Your task to perform on an android device: Search for Italian restaurants on Maps Image 0: 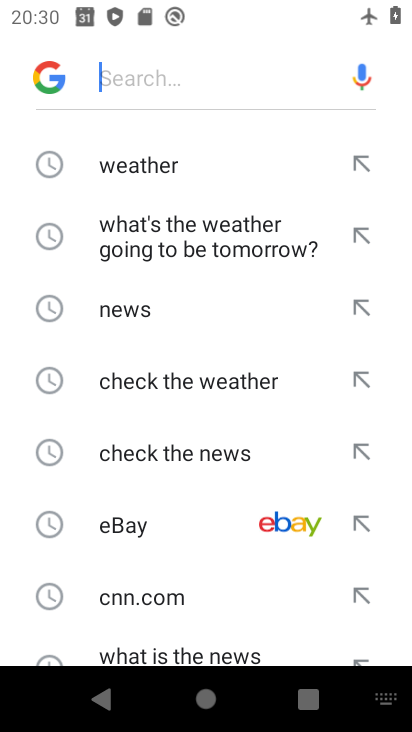
Step 0: press home button
Your task to perform on an android device: Search for Italian restaurants on Maps Image 1: 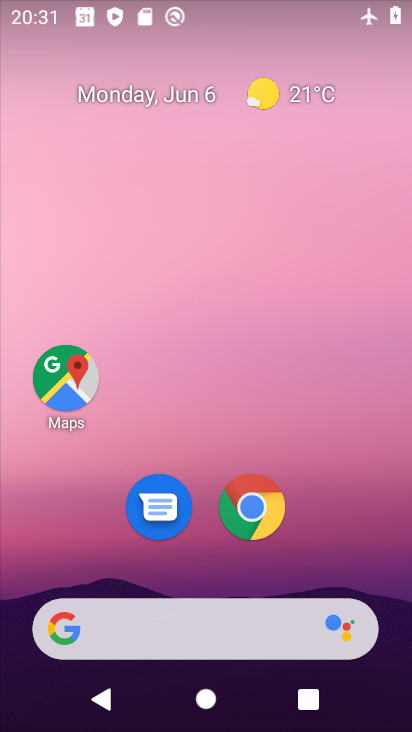
Step 1: click (53, 376)
Your task to perform on an android device: Search for Italian restaurants on Maps Image 2: 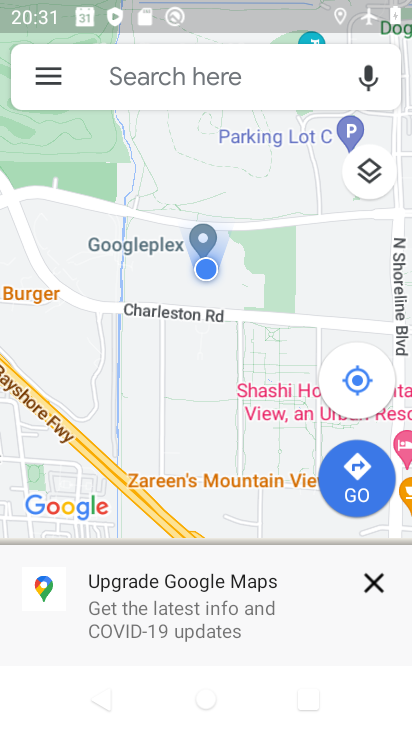
Step 2: click (376, 584)
Your task to perform on an android device: Search for Italian restaurants on Maps Image 3: 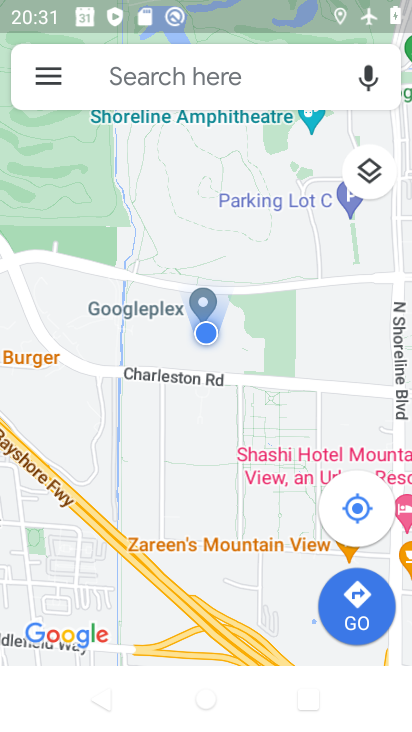
Step 3: click (43, 76)
Your task to perform on an android device: Search for Italian restaurants on Maps Image 4: 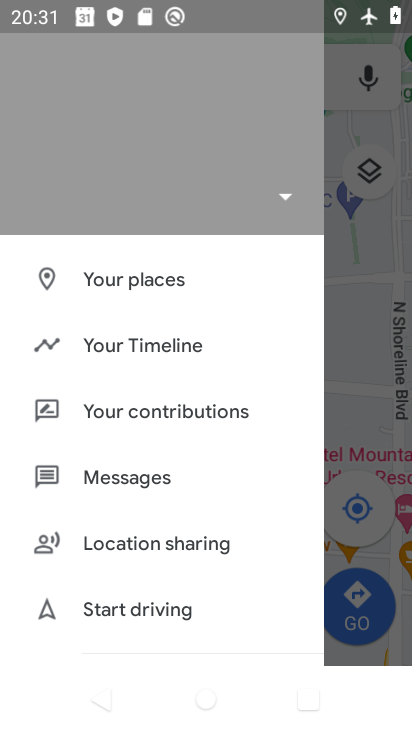
Step 4: drag from (160, 564) to (154, 236)
Your task to perform on an android device: Search for Italian restaurants on Maps Image 5: 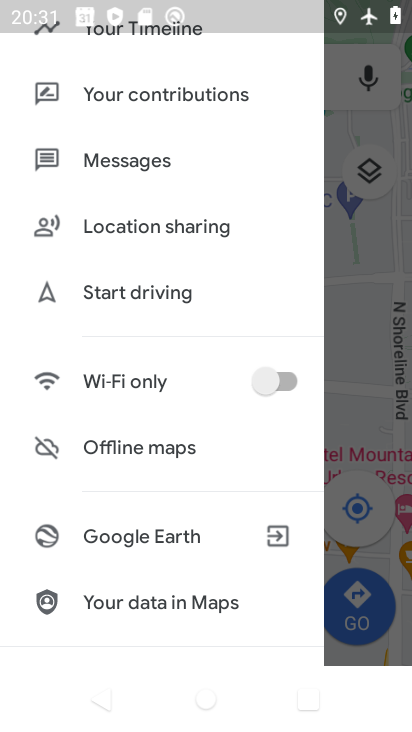
Step 5: drag from (165, 529) to (184, 152)
Your task to perform on an android device: Search for Italian restaurants on Maps Image 6: 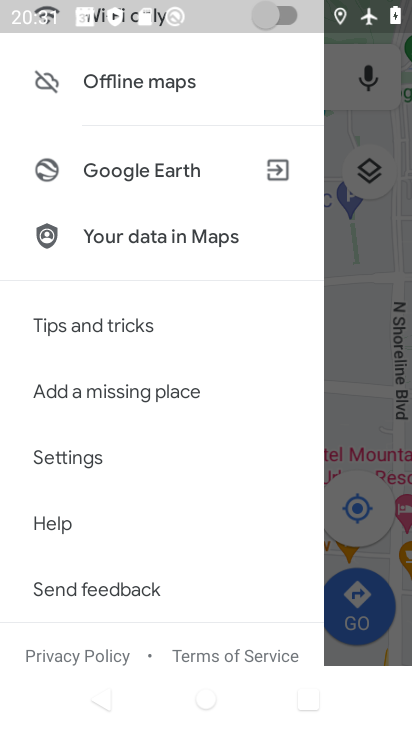
Step 6: drag from (168, 640) to (109, 184)
Your task to perform on an android device: Search for Italian restaurants on Maps Image 7: 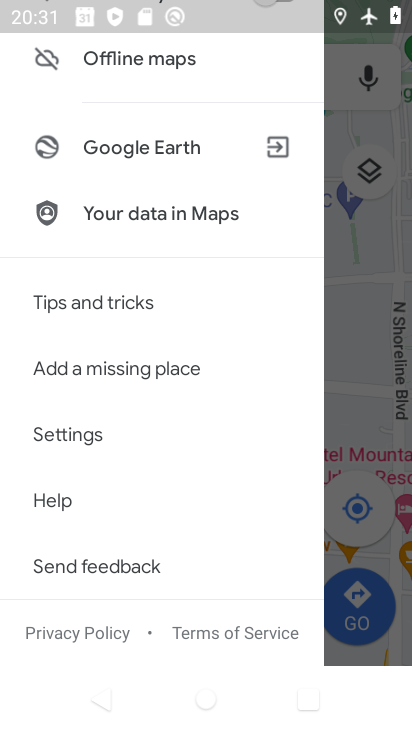
Step 7: press back button
Your task to perform on an android device: Search for Italian restaurants on Maps Image 8: 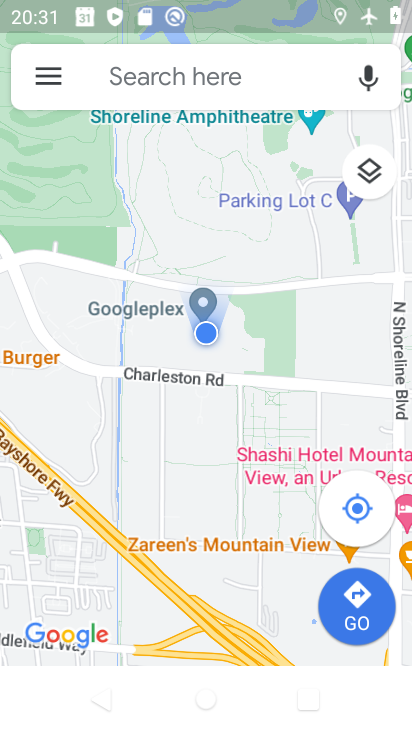
Step 8: click (158, 78)
Your task to perform on an android device: Search for Italian restaurants on Maps Image 9: 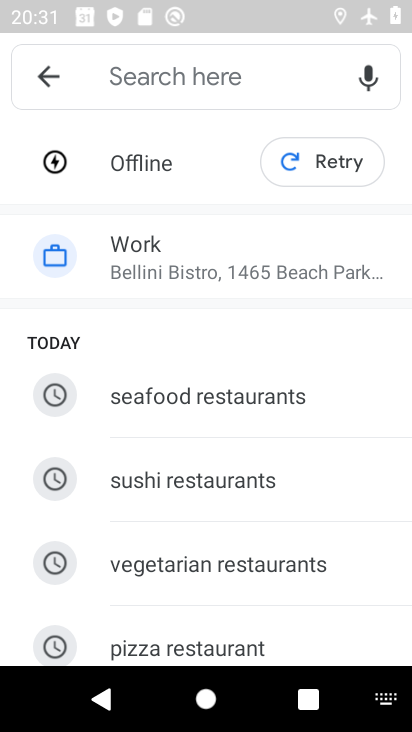
Step 9: drag from (162, 611) to (184, 330)
Your task to perform on an android device: Search for Italian restaurants on Maps Image 10: 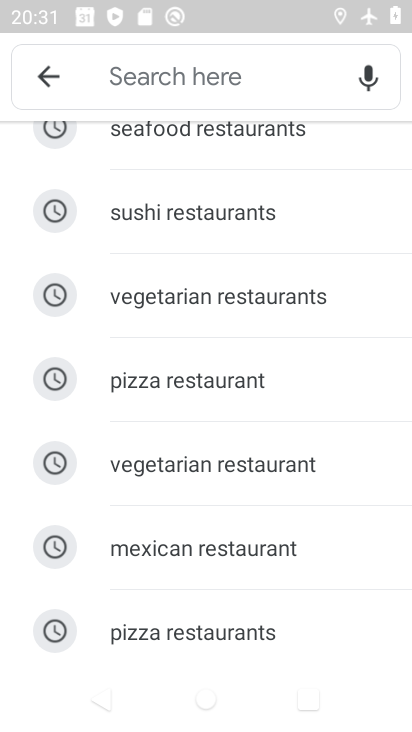
Step 10: drag from (189, 561) to (216, 257)
Your task to perform on an android device: Search for Italian restaurants on Maps Image 11: 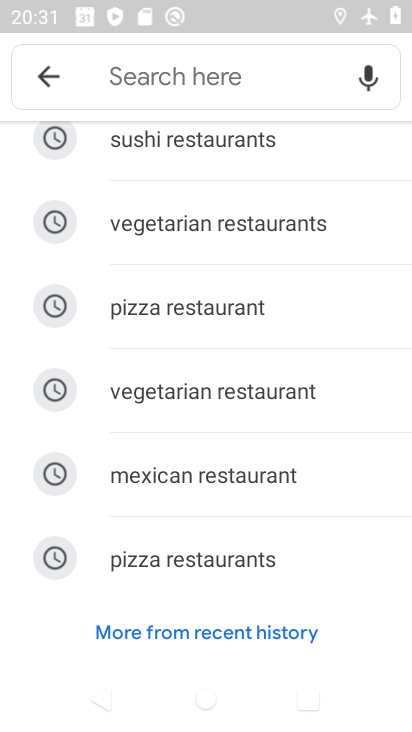
Step 11: drag from (211, 259) to (219, 506)
Your task to perform on an android device: Search for Italian restaurants on Maps Image 12: 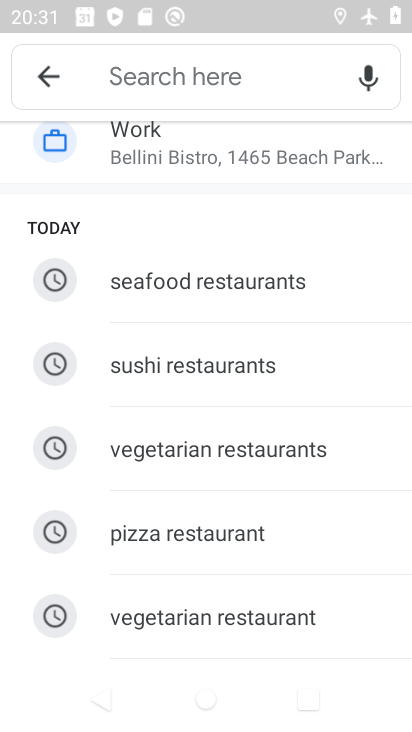
Step 12: click (43, 80)
Your task to perform on an android device: Search for Italian restaurants on Maps Image 13: 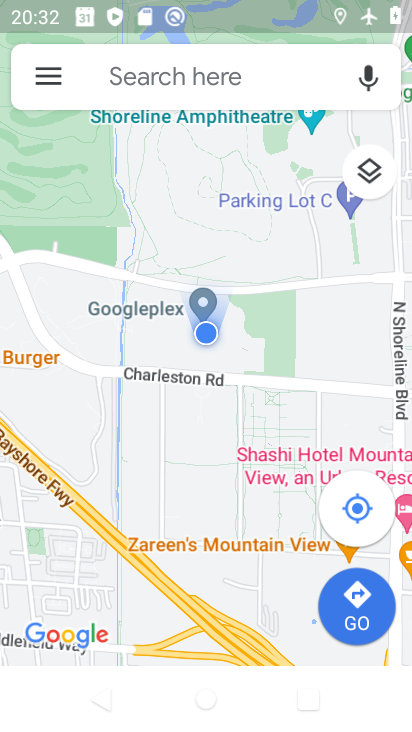
Step 13: click (158, 80)
Your task to perform on an android device: Search for Italian restaurants on Maps Image 14: 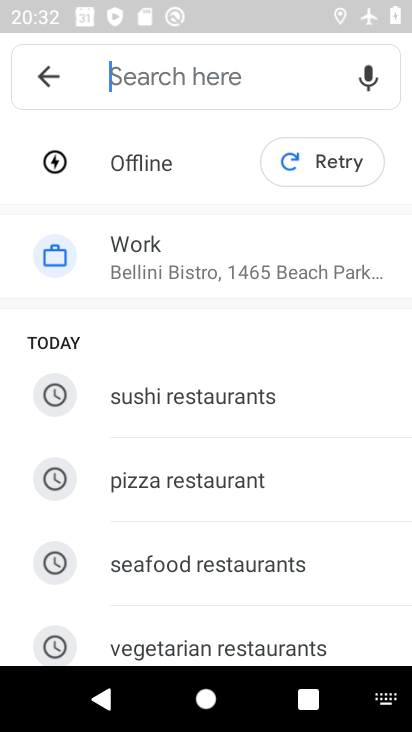
Step 14: type "italian restaurants"
Your task to perform on an android device: Search for Italian restaurants on Maps Image 15: 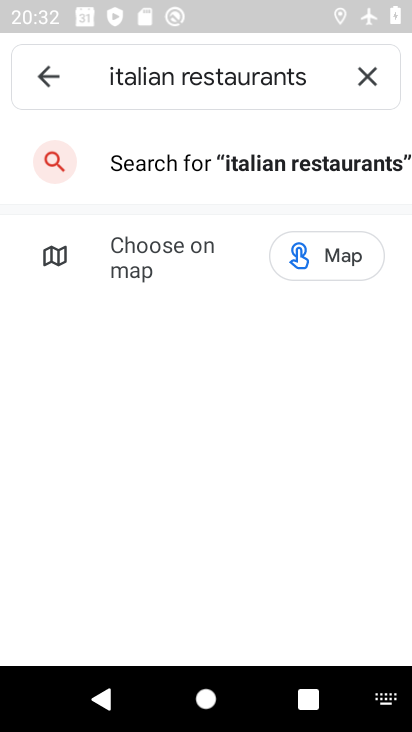
Step 15: press back button
Your task to perform on an android device: Search for Italian restaurants on Maps Image 16: 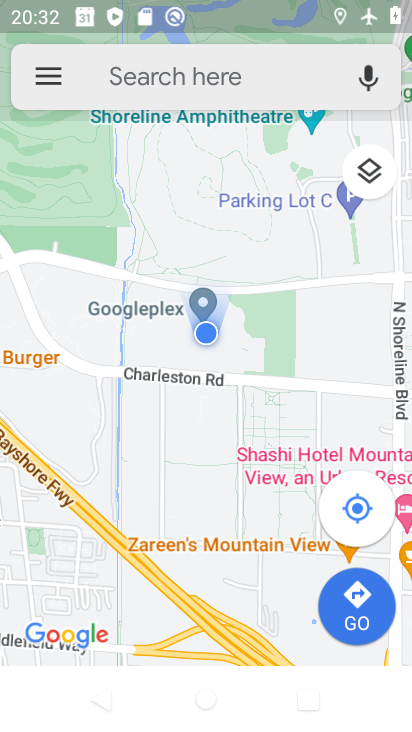
Step 16: press back button
Your task to perform on an android device: Search for Italian restaurants on Maps Image 17: 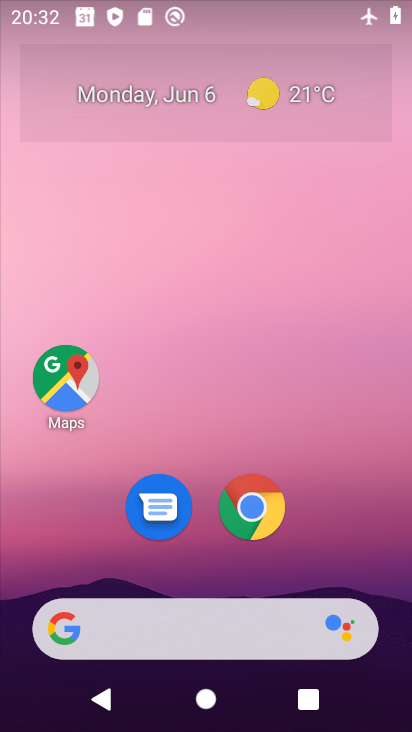
Step 17: drag from (218, 426) to (216, 9)
Your task to perform on an android device: Search for Italian restaurants on Maps Image 18: 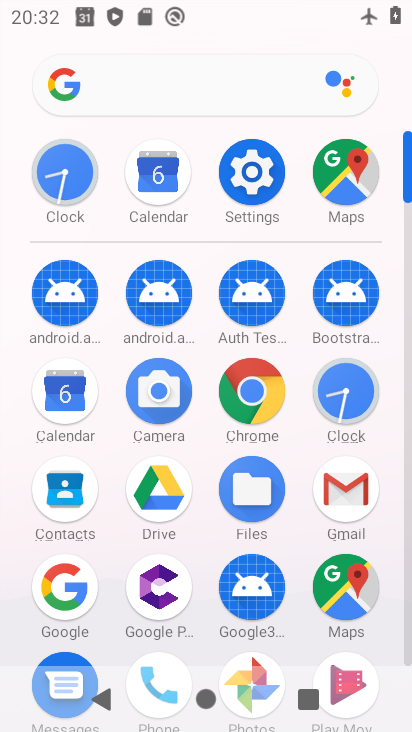
Step 18: click (250, 174)
Your task to perform on an android device: Search for Italian restaurants on Maps Image 19: 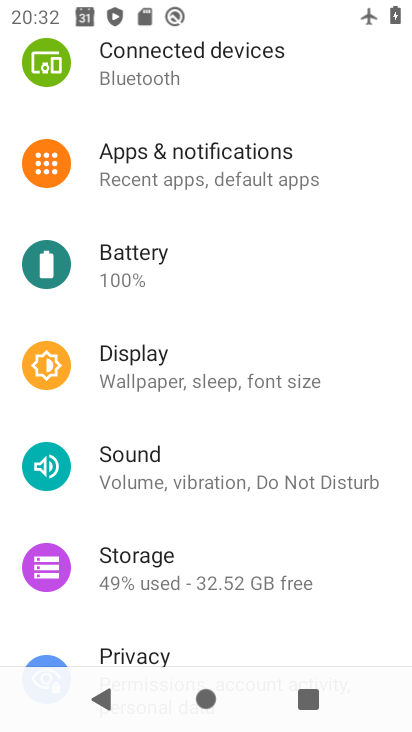
Step 19: drag from (274, 148) to (212, 526)
Your task to perform on an android device: Search for Italian restaurants on Maps Image 20: 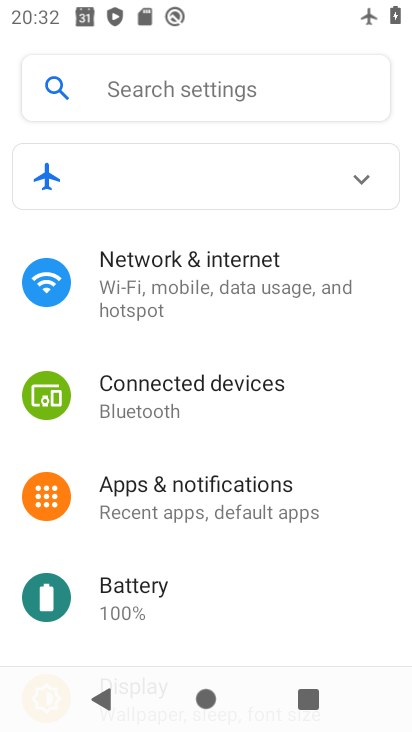
Step 20: click (360, 181)
Your task to perform on an android device: Search for Italian restaurants on Maps Image 21: 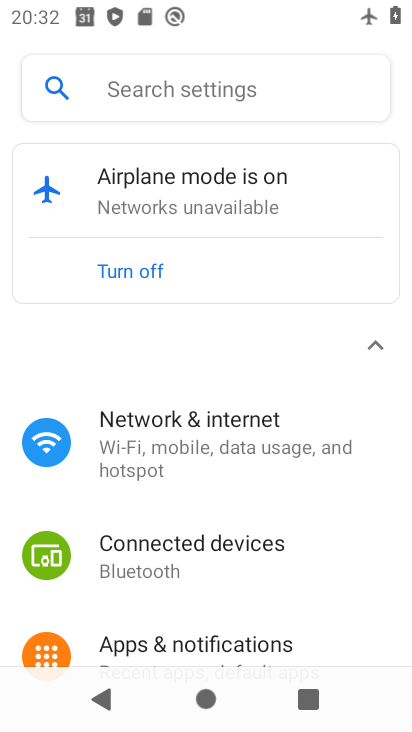
Step 21: click (133, 277)
Your task to perform on an android device: Search for Italian restaurants on Maps Image 22: 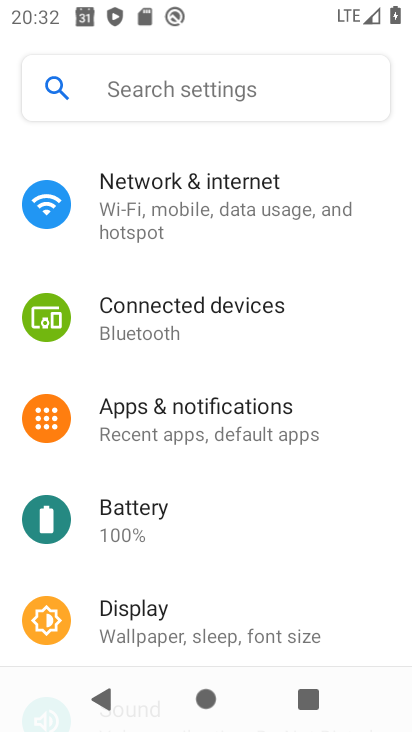
Step 22: press back button
Your task to perform on an android device: Search for Italian restaurants on Maps Image 23: 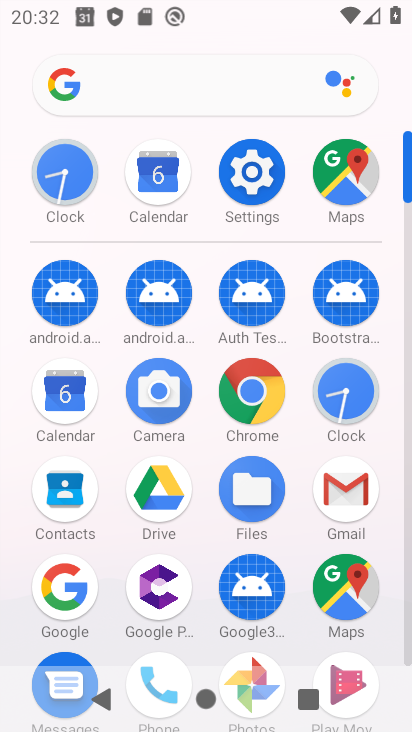
Step 23: click (357, 157)
Your task to perform on an android device: Search for Italian restaurants on Maps Image 24: 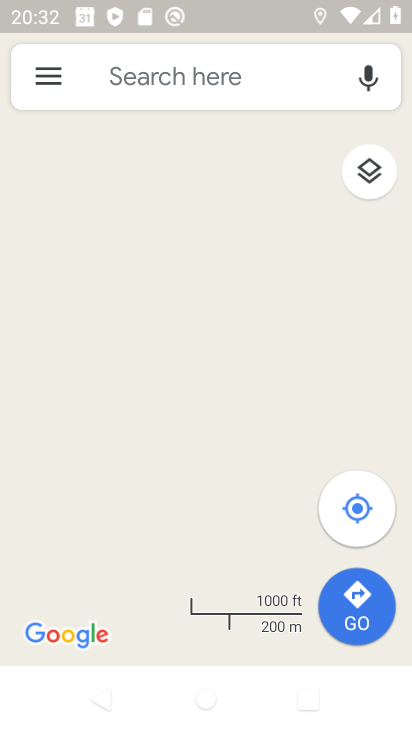
Step 24: click (187, 76)
Your task to perform on an android device: Search for Italian restaurants on Maps Image 25: 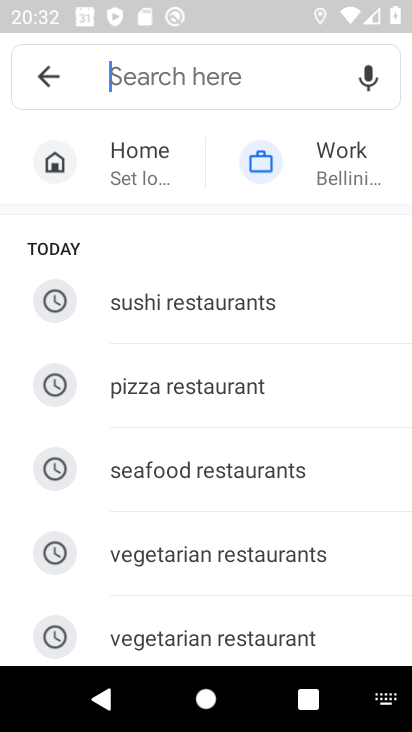
Step 25: drag from (223, 628) to (215, 293)
Your task to perform on an android device: Search for Italian restaurants on Maps Image 26: 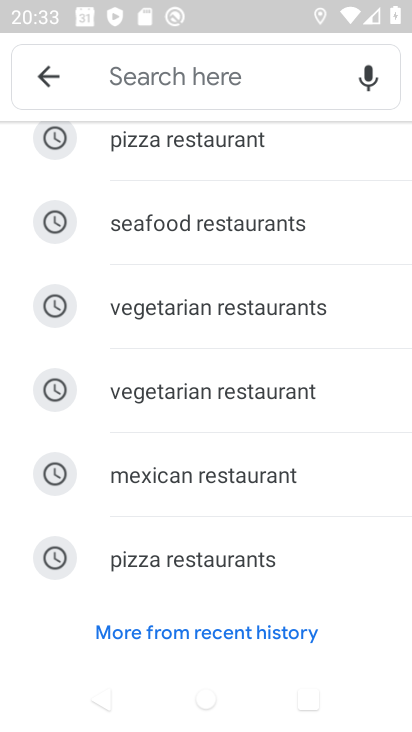
Step 26: click (143, 86)
Your task to perform on an android device: Search for Italian restaurants on Maps Image 27: 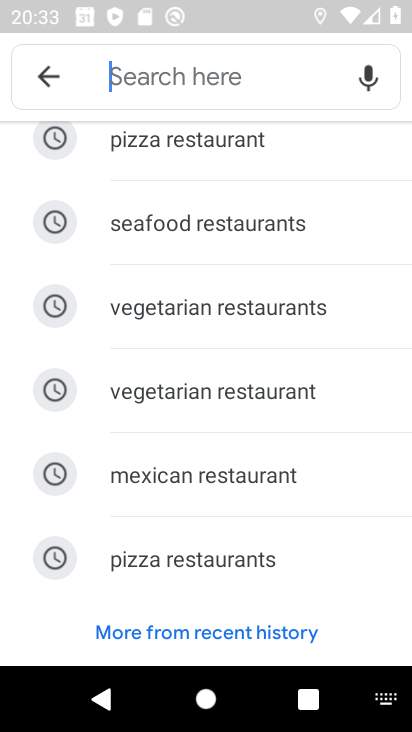
Step 27: type "italian restaurants"
Your task to perform on an android device: Search for Italian restaurants on Maps Image 28: 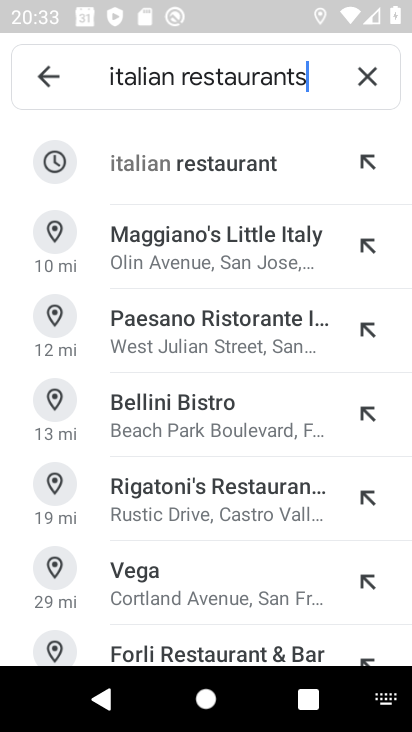
Step 28: click (185, 155)
Your task to perform on an android device: Search for Italian restaurants on Maps Image 29: 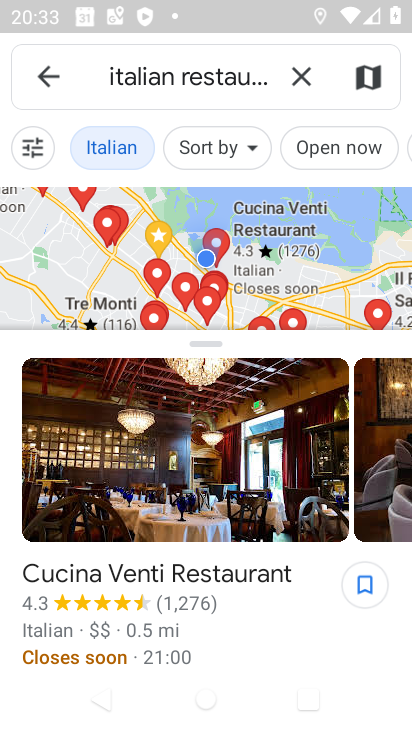
Step 29: task complete